Your task to perform on an android device: make emails show in primary in the gmail app Image 0: 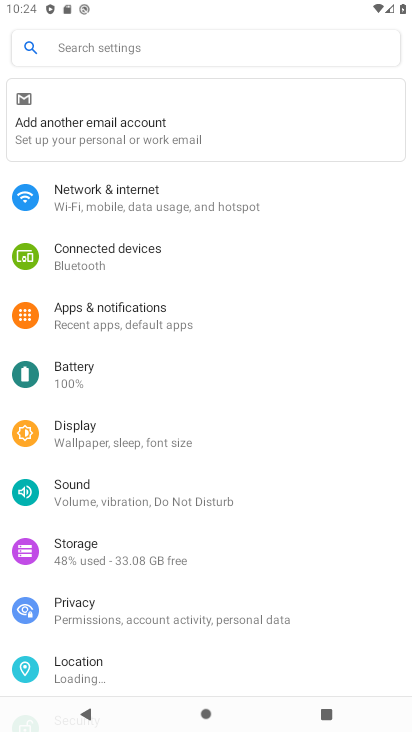
Step 0: press home button
Your task to perform on an android device: make emails show in primary in the gmail app Image 1: 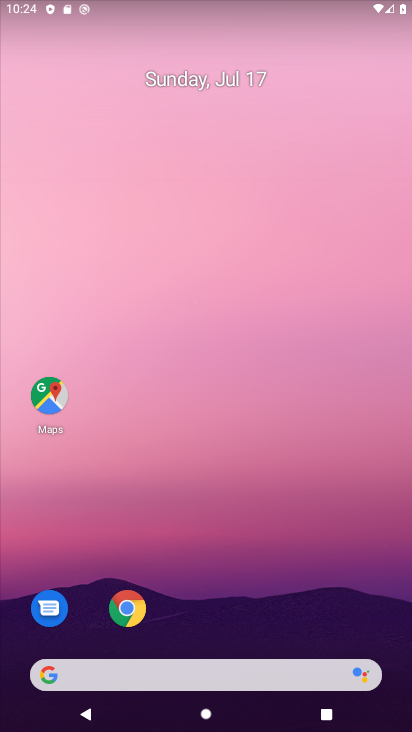
Step 1: drag from (286, 611) to (210, 219)
Your task to perform on an android device: make emails show in primary in the gmail app Image 2: 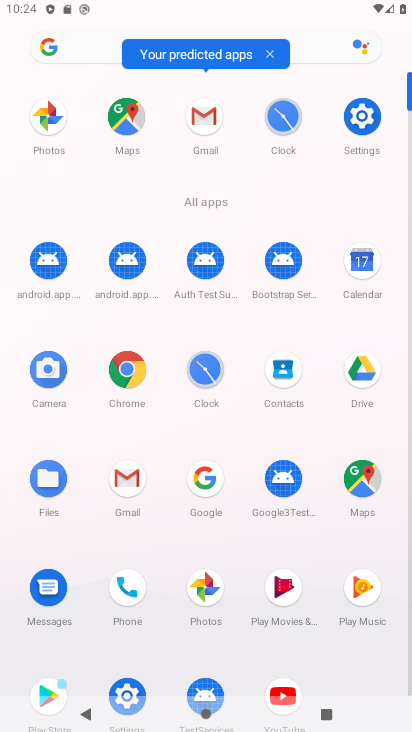
Step 2: click (202, 118)
Your task to perform on an android device: make emails show in primary in the gmail app Image 3: 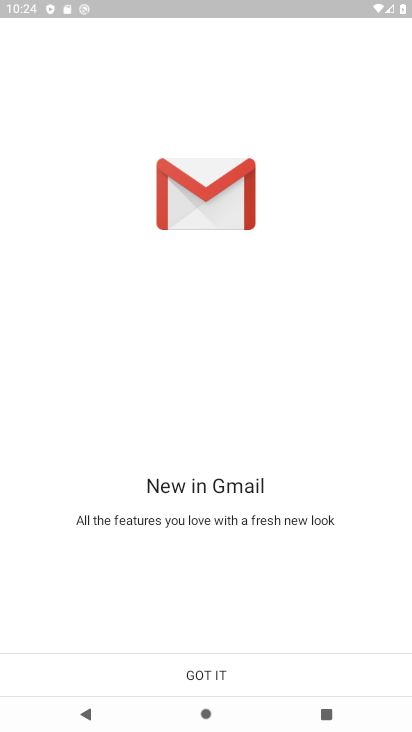
Step 3: click (242, 678)
Your task to perform on an android device: make emails show in primary in the gmail app Image 4: 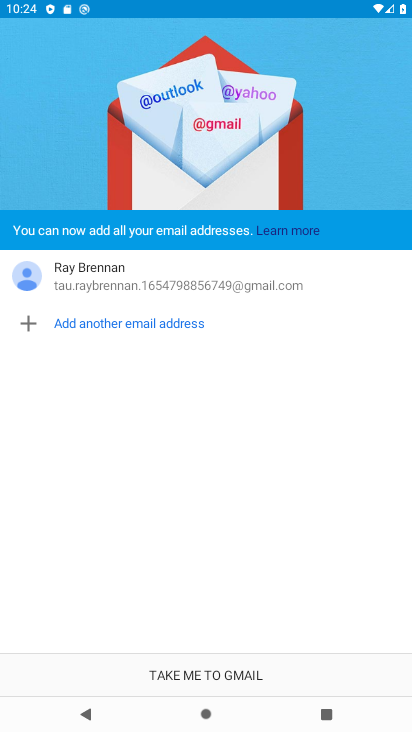
Step 4: click (242, 678)
Your task to perform on an android device: make emails show in primary in the gmail app Image 5: 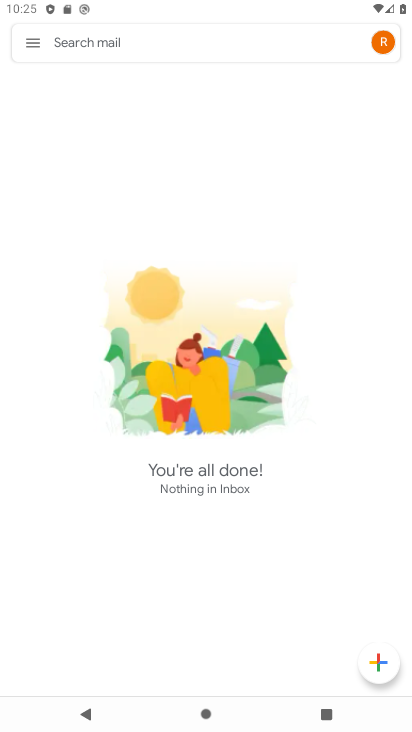
Step 5: click (41, 47)
Your task to perform on an android device: make emails show in primary in the gmail app Image 6: 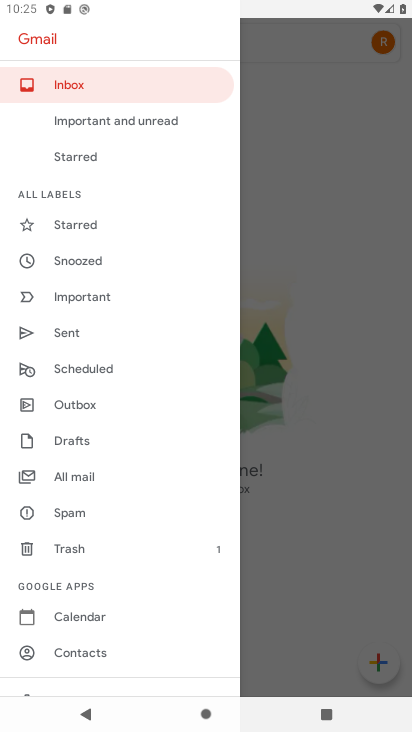
Step 6: drag from (119, 631) to (90, 324)
Your task to perform on an android device: make emails show in primary in the gmail app Image 7: 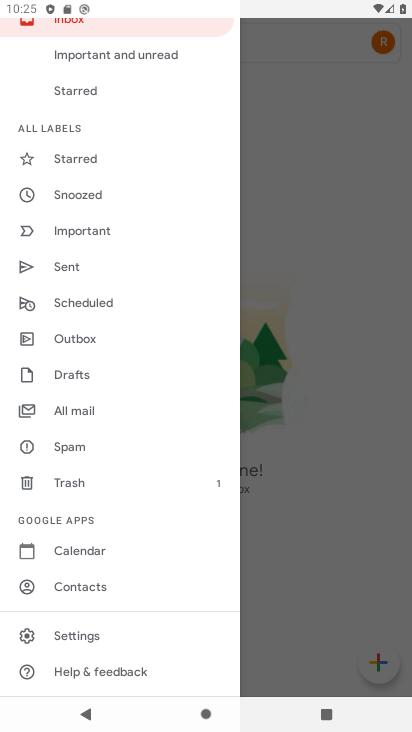
Step 7: click (94, 633)
Your task to perform on an android device: make emails show in primary in the gmail app Image 8: 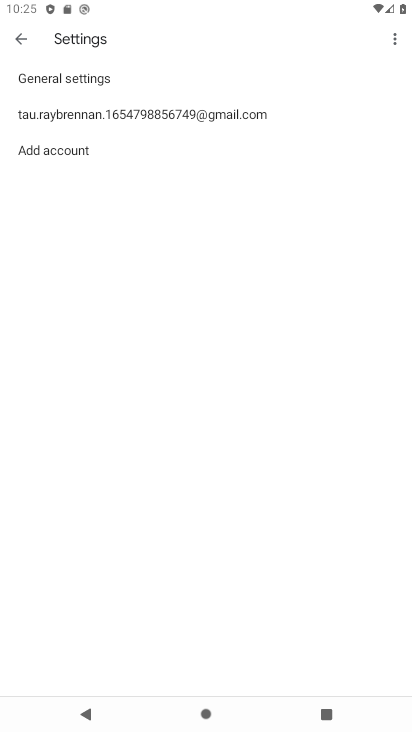
Step 8: click (188, 108)
Your task to perform on an android device: make emails show in primary in the gmail app Image 9: 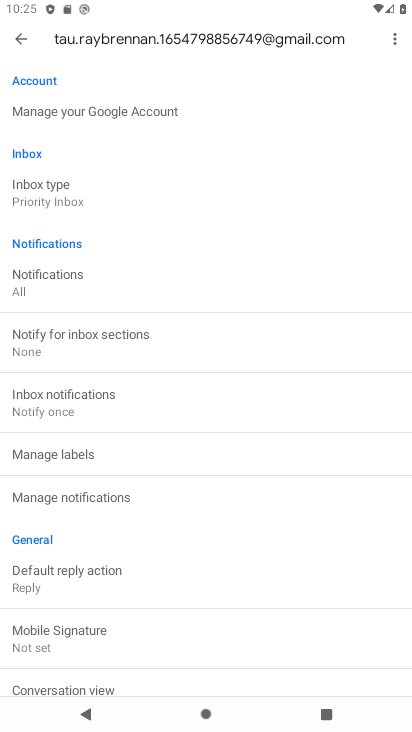
Step 9: click (103, 204)
Your task to perform on an android device: make emails show in primary in the gmail app Image 10: 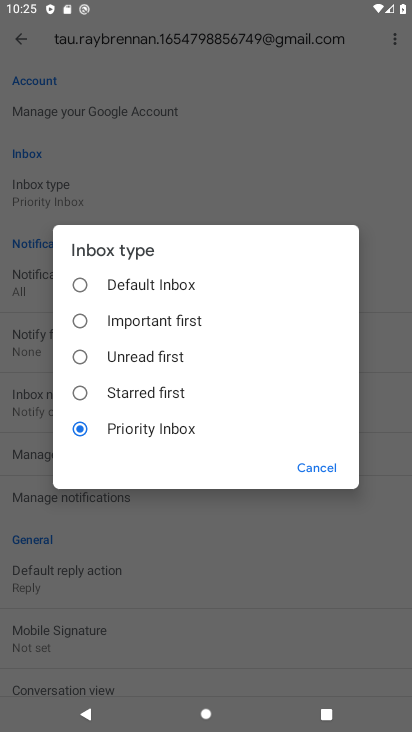
Step 10: click (146, 287)
Your task to perform on an android device: make emails show in primary in the gmail app Image 11: 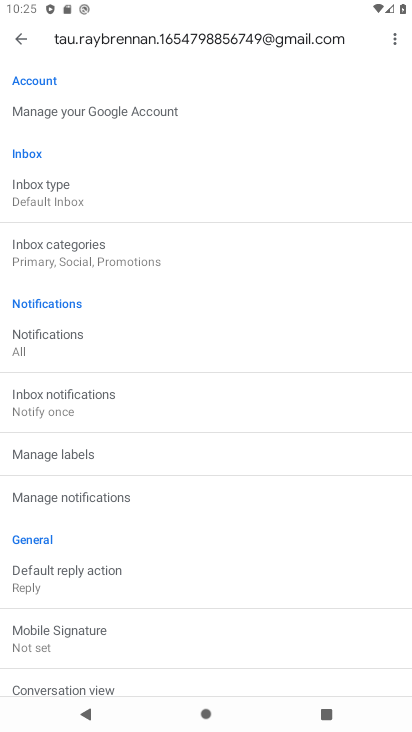
Step 11: task complete